Your task to perform on an android device: Open Youtube and go to the subscriptions tab Image 0: 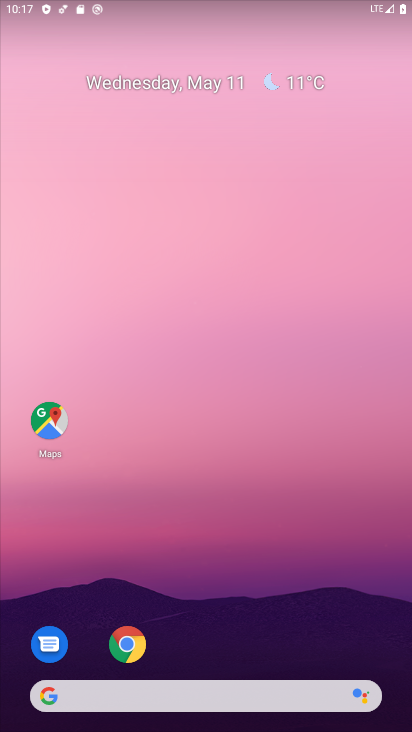
Step 0: drag from (244, 446) to (262, 207)
Your task to perform on an android device: Open Youtube and go to the subscriptions tab Image 1: 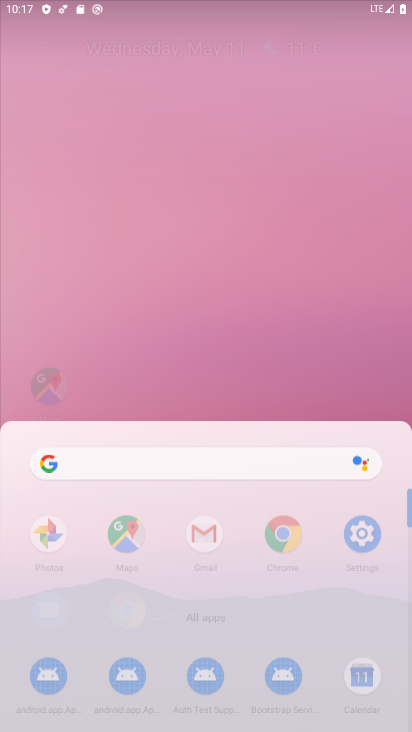
Step 1: click (265, 116)
Your task to perform on an android device: Open Youtube and go to the subscriptions tab Image 2: 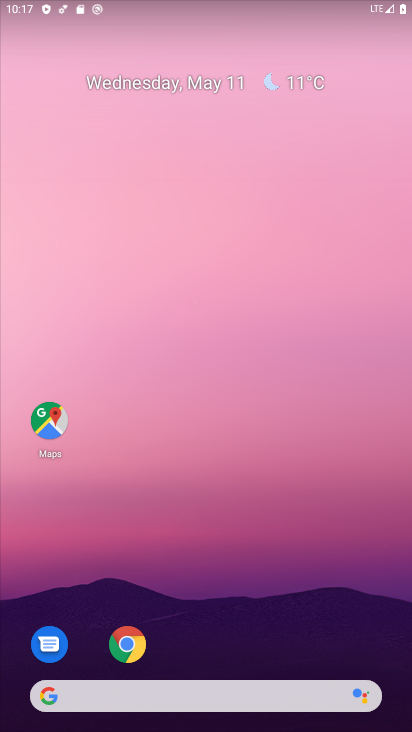
Step 2: drag from (206, 655) to (265, 64)
Your task to perform on an android device: Open Youtube and go to the subscriptions tab Image 3: 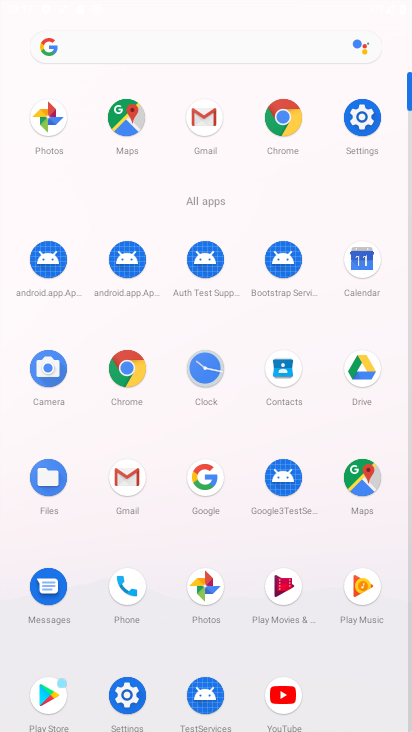
Step 3: click (284, 687)
Your task to perform on an android device: Open Youtube and go to the subscriptions tab Image 4: 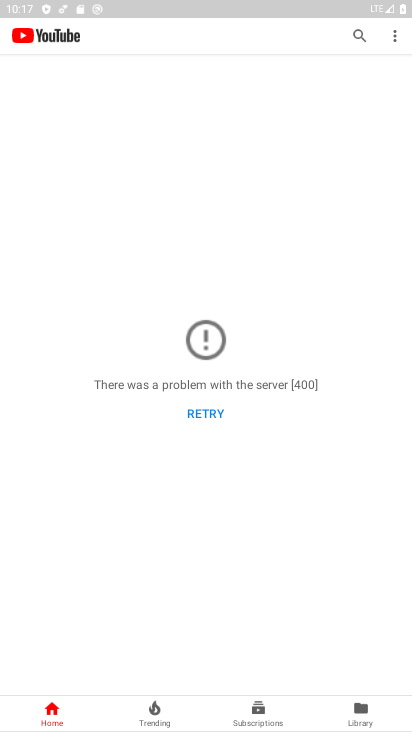
Step 4: click (255, 703)
Your task to perform on an android device: Open Youtube and go to the subscriptions tab Image 5: 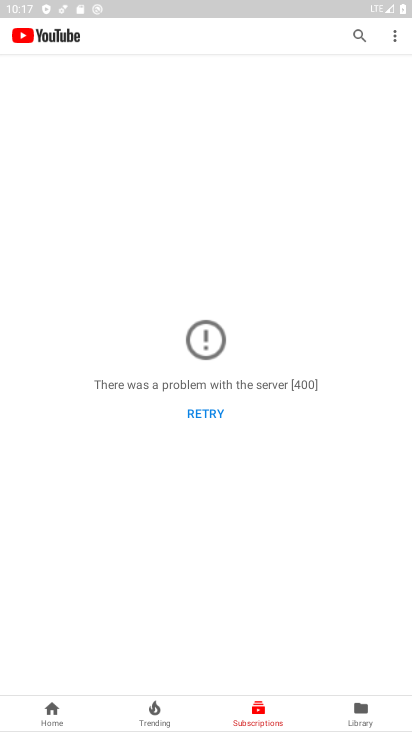
Step 5: task complete